Your task to perform on an android device: turn on the 24-hour format for clock Image 0: 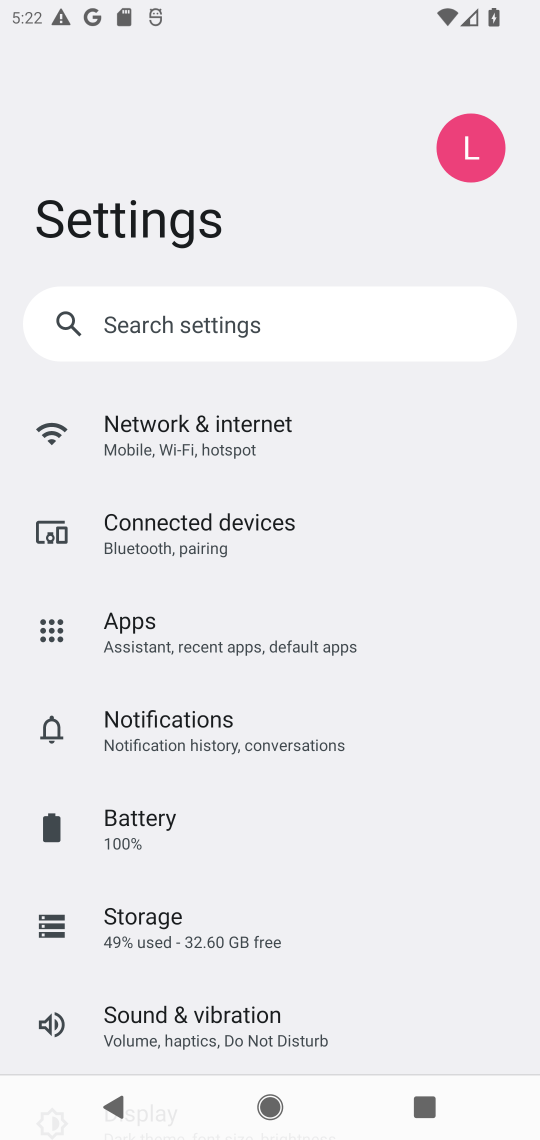
Step 0: press home button
Your task to perform on an android device: turn on the 24-hour format for clock Image 1: 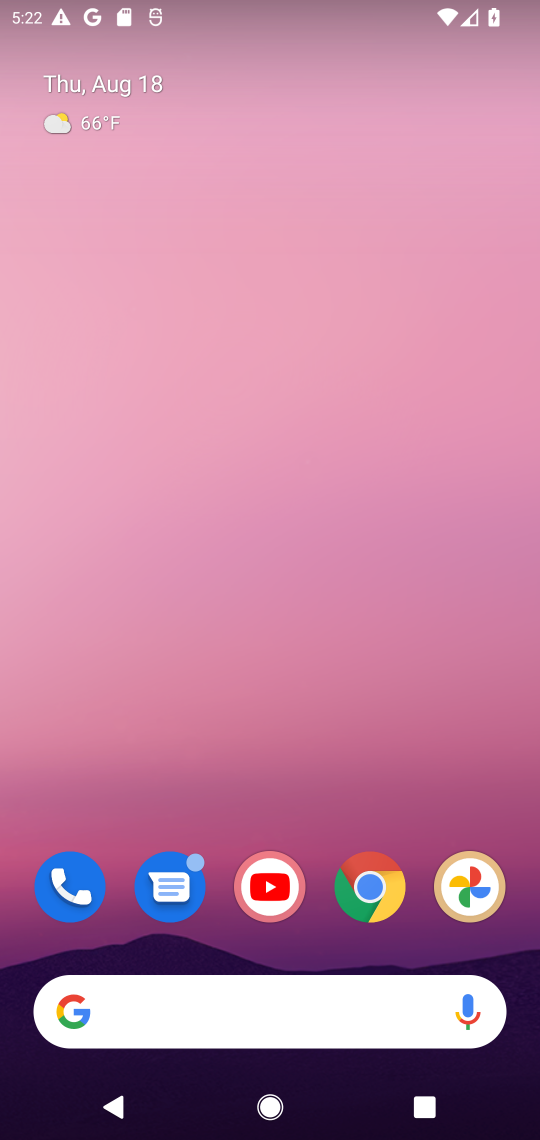
Step 1: task complete